Your task to perform on an android device: open chrome privacy settings Image 0: 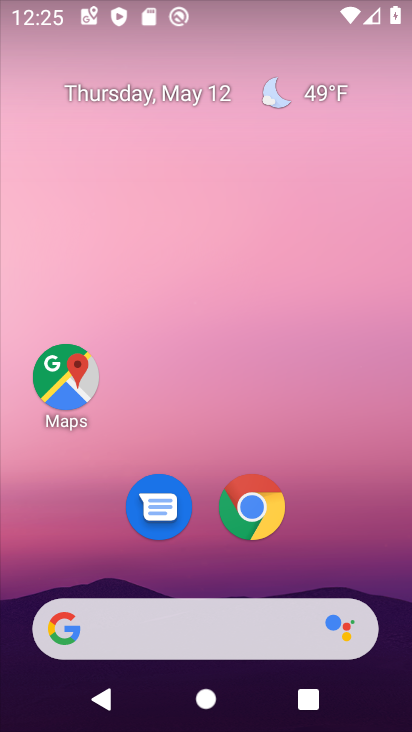
Step 0: click (247, 507)
Your task to perform on an android device: open chrome privacy settings Image 1: 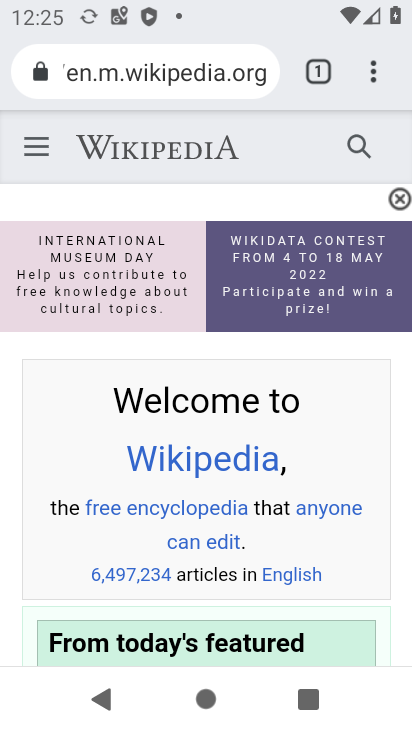
Step 1: click (374, 54)
Your task to perform on an android device: open chrome privacy settings Image 2: 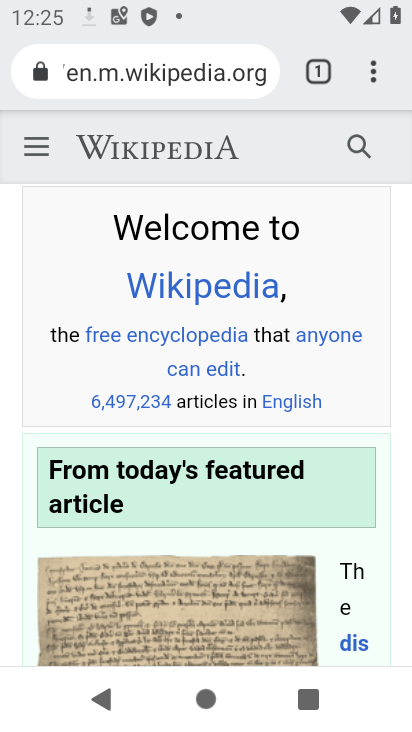
Step 2: click (364, 72)
Your task to perform on an android device: open chrome privacy settings Image 3: 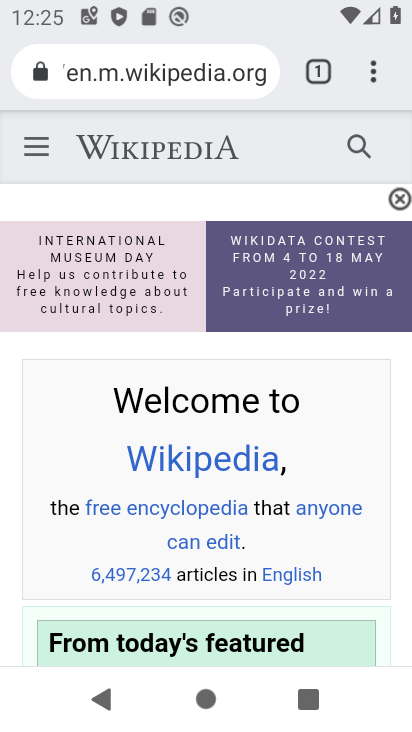
Step 3: click (364, 72)
Your task to perform on an android device: open chrome privacy settings Image 4: 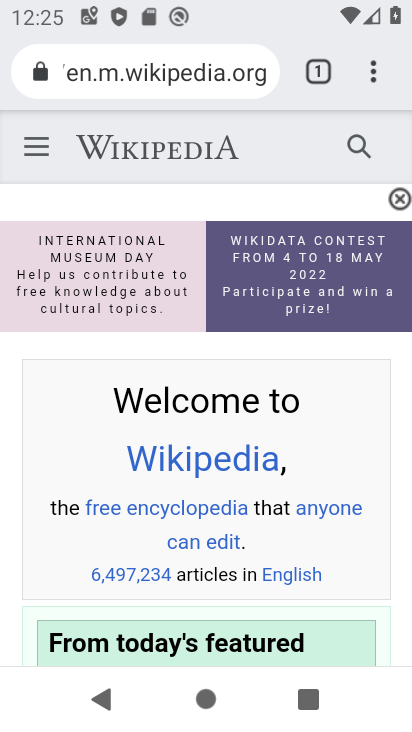
Step 4: click (364, 72)
Your task to perform on an android device: open chrome privacy settings Image 5: 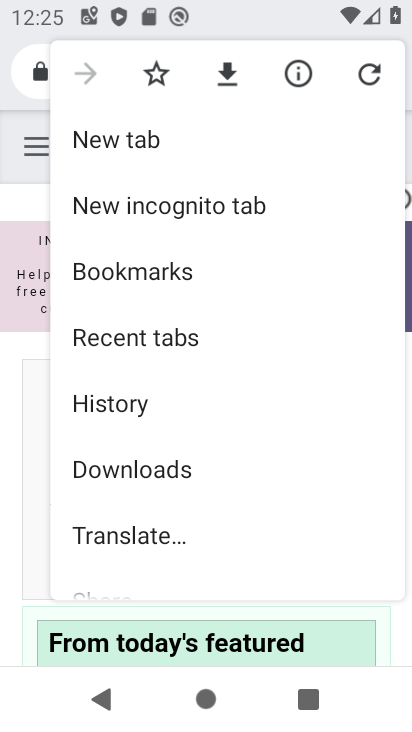
Step 5: drag from (196, 522) to (156, 284)
Your task to perform on an android device: open chrome privacy settings Image 6: 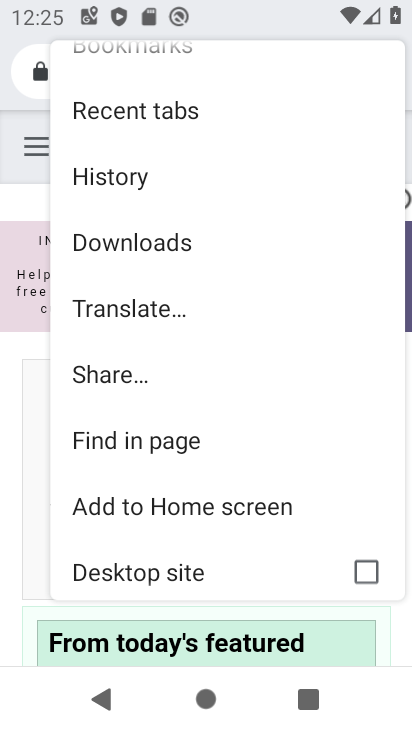
Step 6: drag from (160, 555) to (178, 320)
Your task to perform on an android device: open chrome privacy settings Image 7: 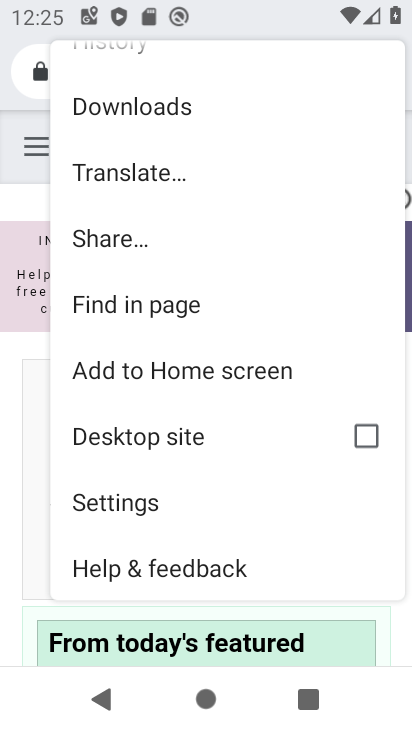
Step 7: click (122, 504)
Your task to perform on an android device: open chrome privacy settings Image 8: 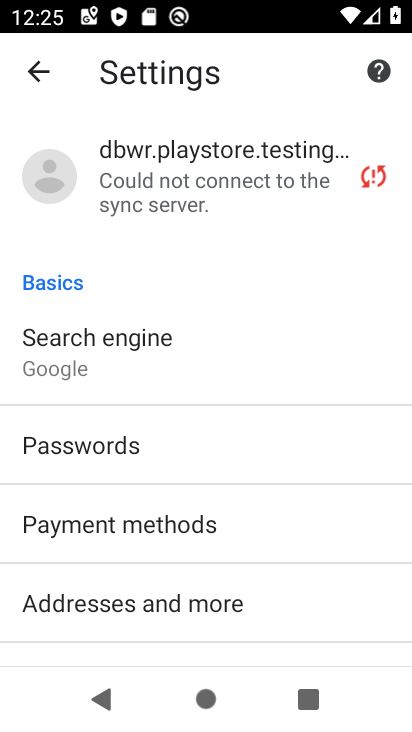
Step 8: drag from (179, 562) to (205, 272)
Your task to perform on an android device: open chrome privacy settings Image 9: 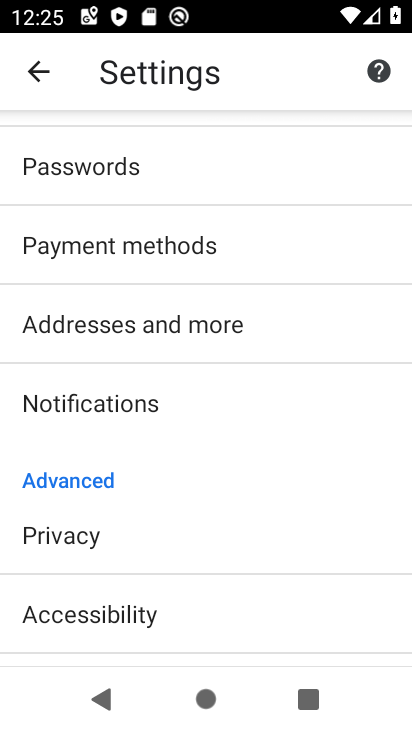
Step 9: click (128, 540)
Your task to perform on an android device: open chrome privacy settings Image 10: 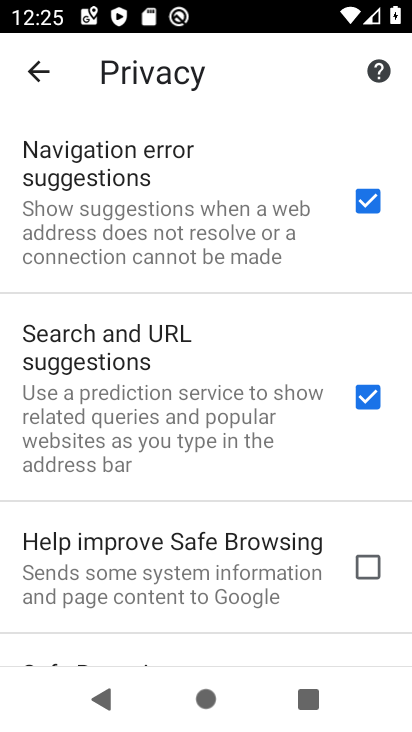
Step 10: task complete